Your task to perform on an android device: turn off improve location accuracy Image 0: 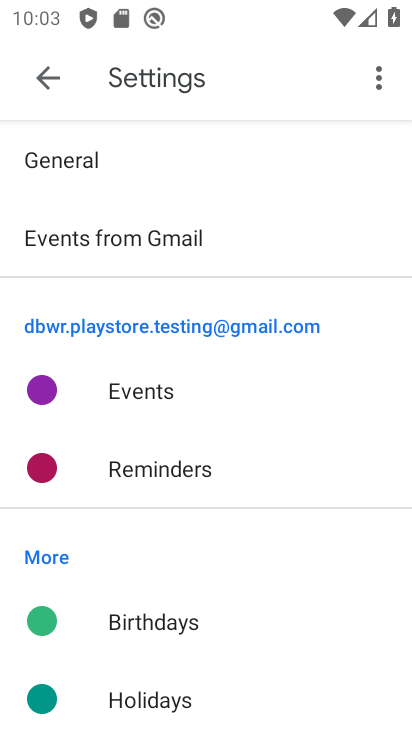
Step 0: task impossible